Your task to perform on an android device: check storage Image 0: 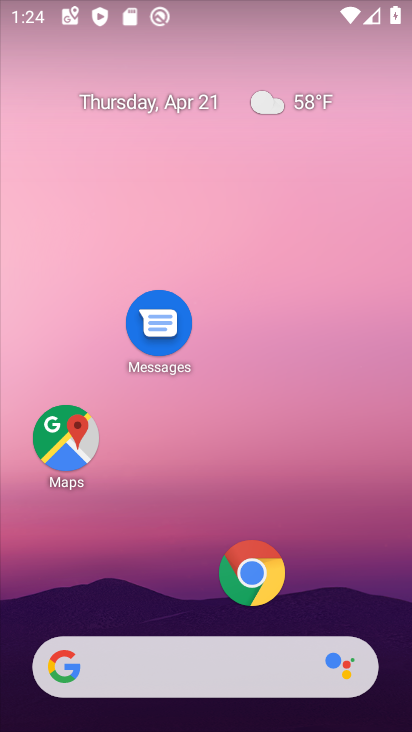
Step 0: drag from (182, 566) to (160, 45)
Your task to perform on an android device: check storage Image 1: 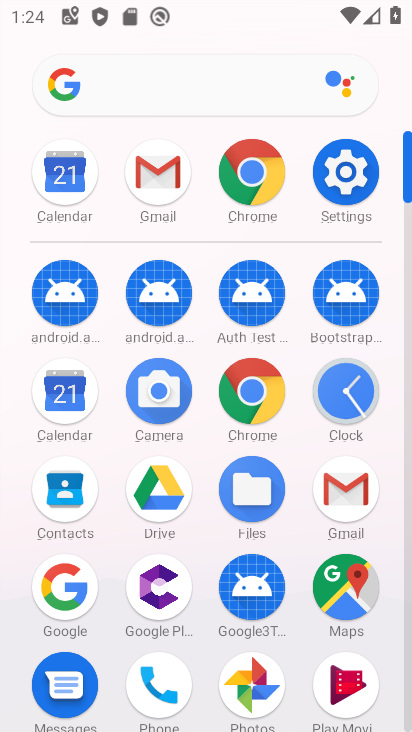
Step 1: click (346, 179)
Your task to perform on an android device: check storage Image 2: 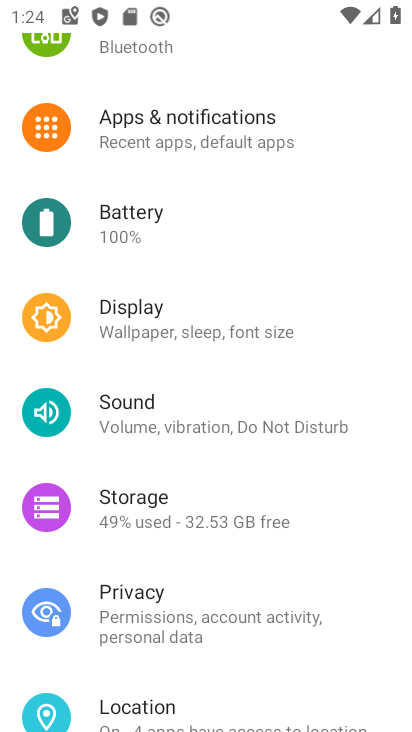
Step 2: click (158, 503)
Your task to perform on an android device: check storage Image 3: 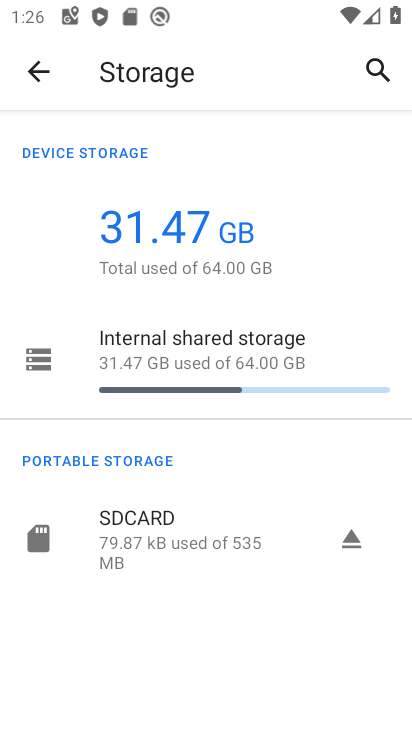
Step 3: task complete